Your task to perform on an android device: toggle sleep mode Image 0: 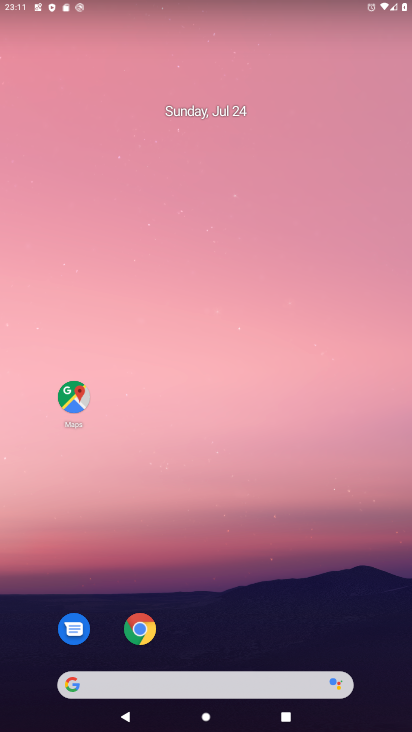
Step 0: drag from (182, 638) to (356, 149)
Your task to perform on an android device: toggle sleep mode Image 1: 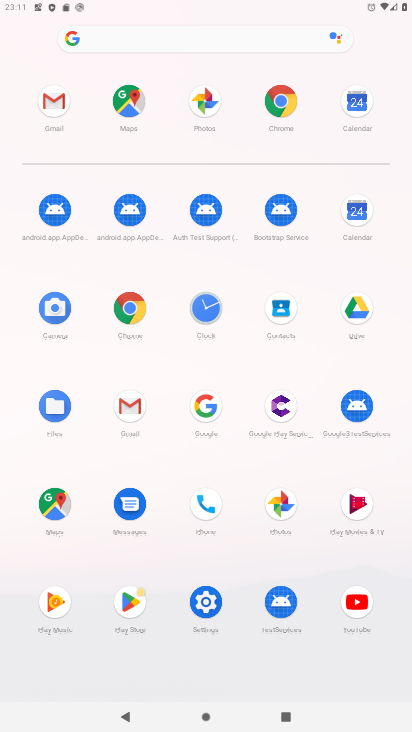
Step 1: click (201, 599)
Your task to perform on an android device: toggle sleep mode Image 2: 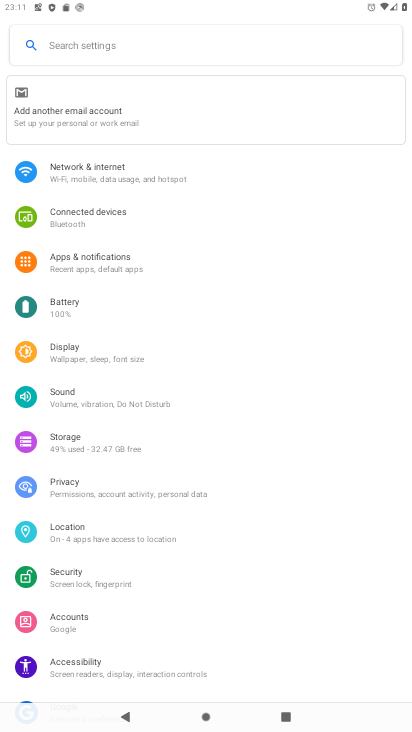
Step 2: click (73, 345)
Your task to perform on an android device: toggle sleep mode Image 3: 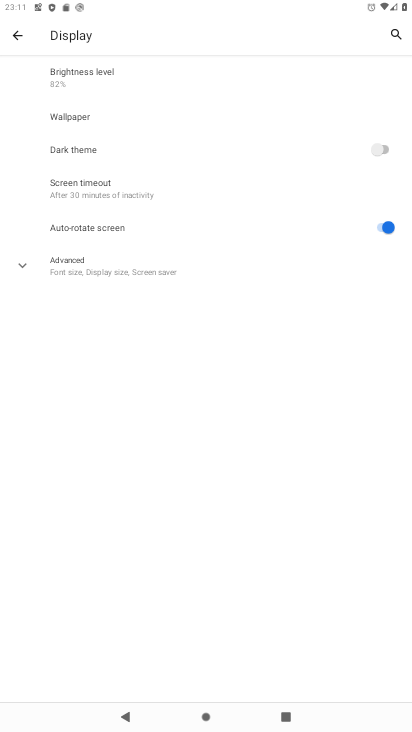
Step 3: click (170, 184)
Your task to perform on an android device: toggle sleep mode Image 4: 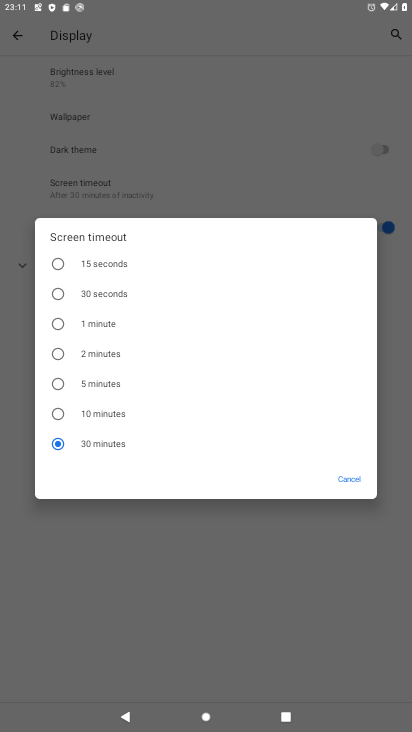
Step 4: click (48, 265)
Your task to perform on an android device: toggle sleep mode Image 5: 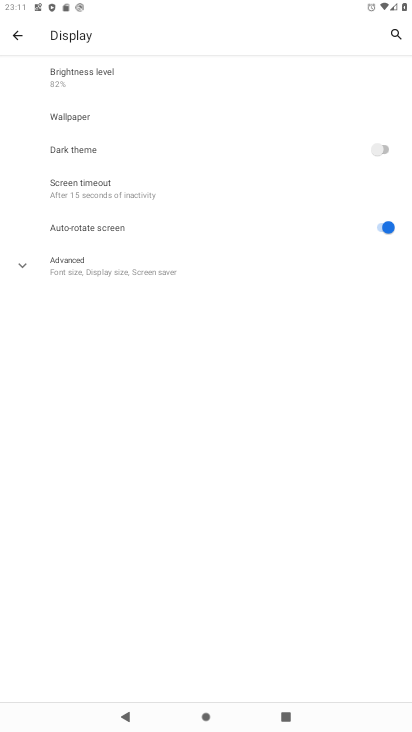
Step 5: task complete